Your task to perform on an android device: toggle show notifications on the lock screen Image 0: 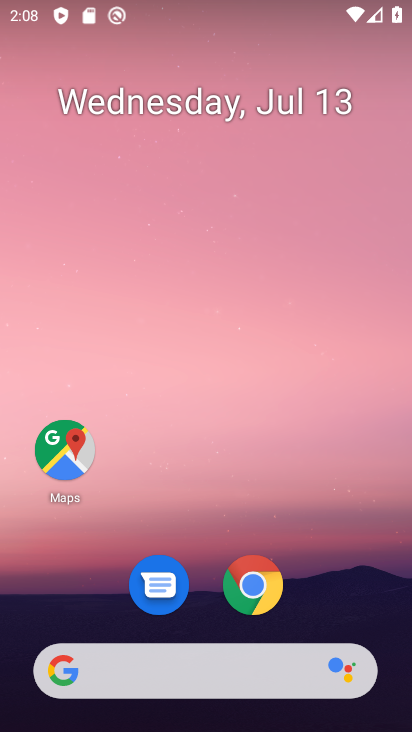
Step 0: press home button
Your task to perform on an android device: toggle show notifications on the lock screen Image 1: 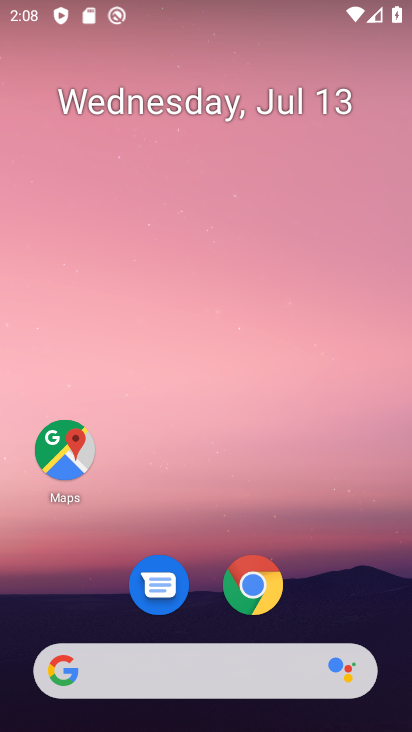
Step 1: drag from (192, 686) to (259, 125)
Your task to perform on an android device: toggle show notifications on the lock screen Image 2: 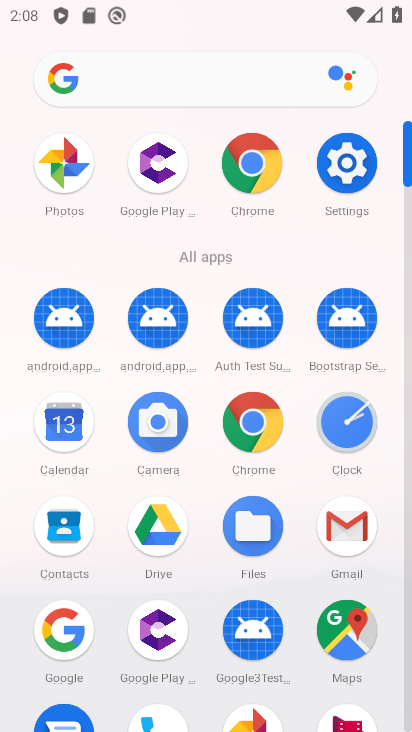
Step 2: click (345, 182)
Your task to perform on an android device: toggle show notifications on the lock screen Image 3: 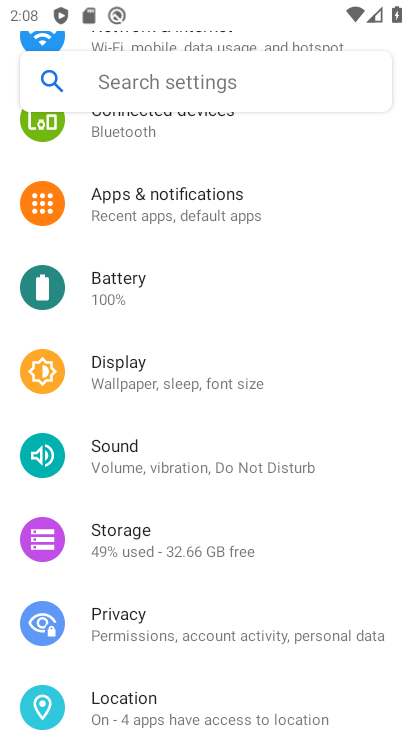
Step 3: click (211, 205)
Your task to perform on an android device: toggle show notifications on the lock screen Image 4: 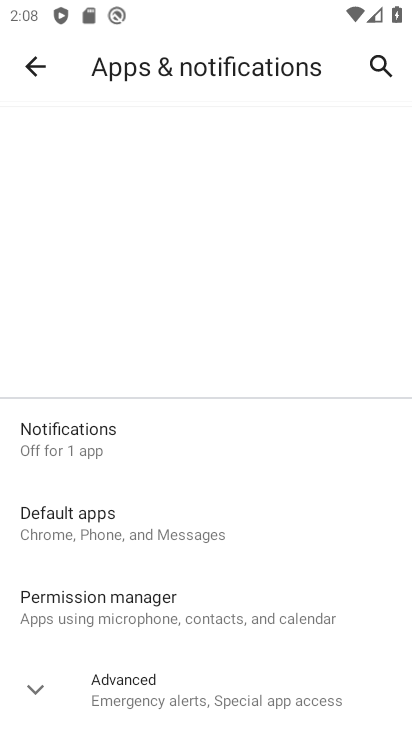
Step 4: click (87, 442)
Your task to perform on an android device: toggle show notifications on the lock screen Image 5: 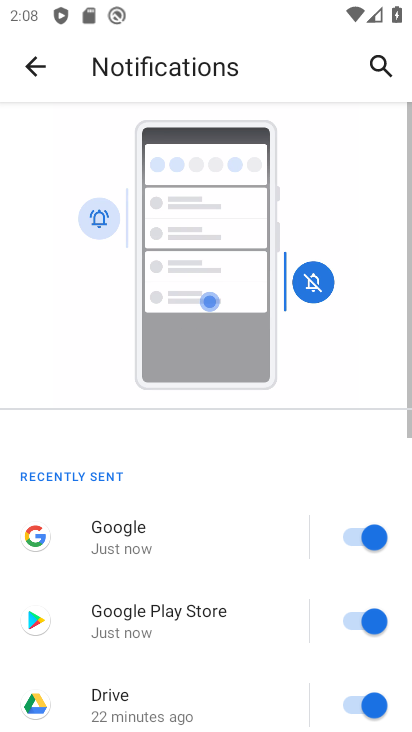
Step 5: drag from (232, 618) to (363, 119)
Your task to perform on an android device: toggle show notifications on the lock screen Image 6: 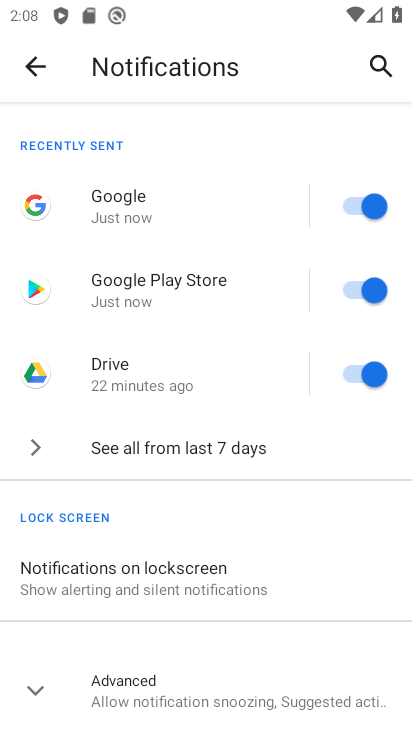
Step 6: click (205, 580)
Your task to perform on an android device: toggle show notifications on the lock screen Image 7: 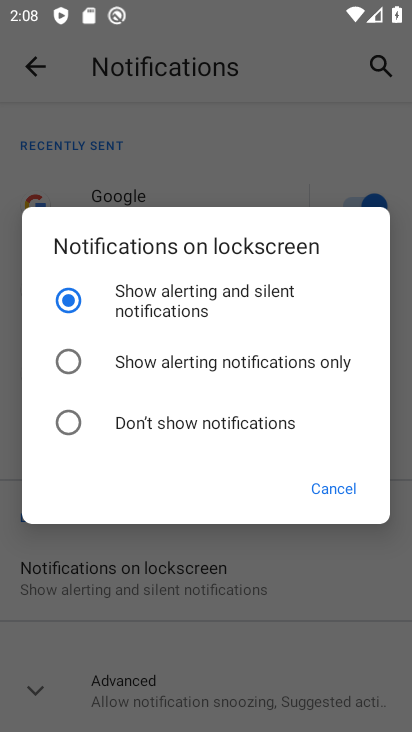
Step 7: click (69, 421)
Your task to perform on an android device: toggle show notifications on the lock screen Image 8: 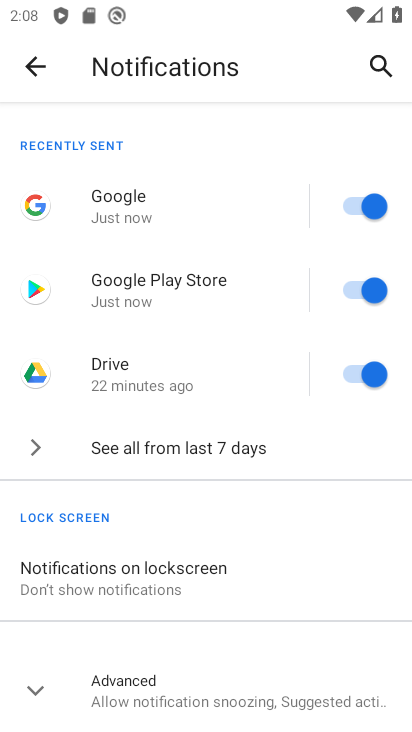
Step 8: task complete